Your task to perform on an android device: uninstall "Firefox Browser" Image 0: 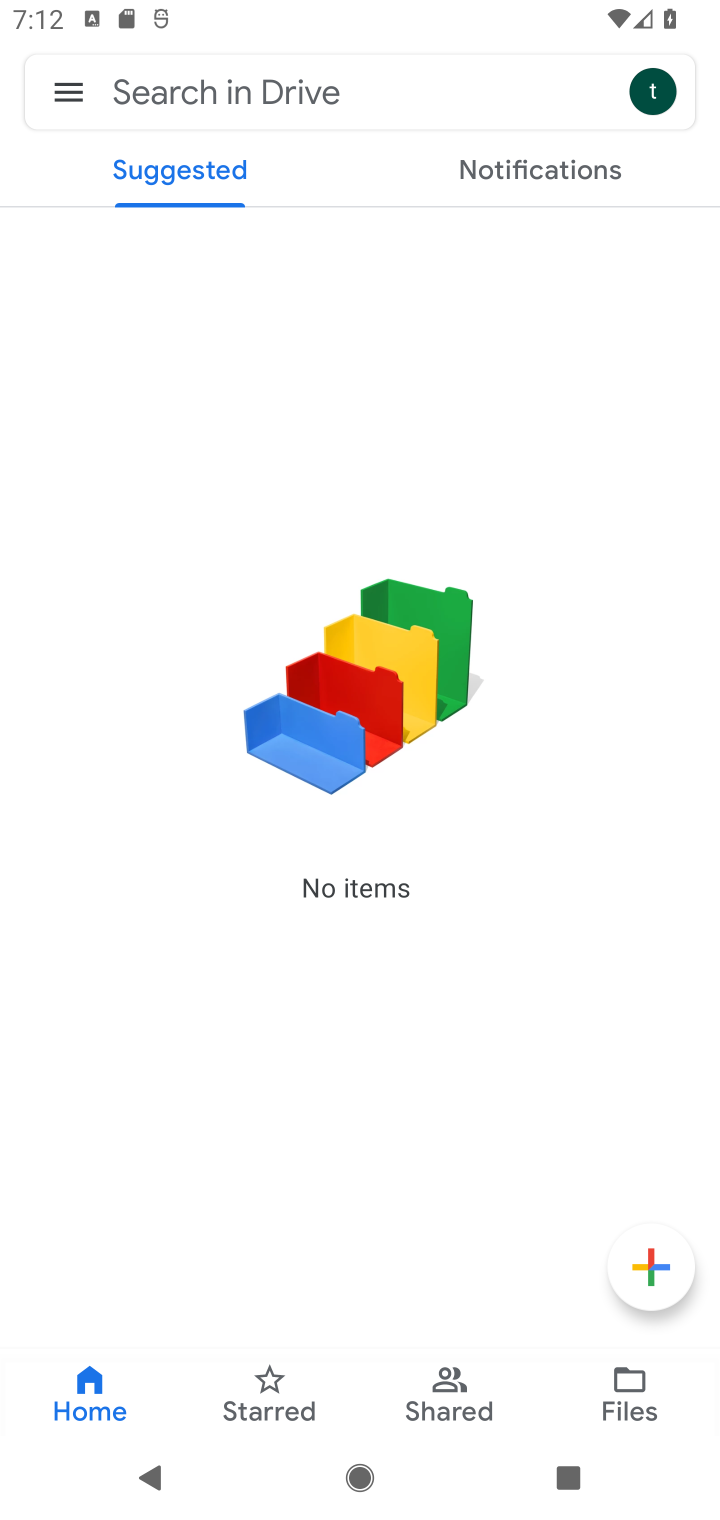
Step 0: press home button
Your task to perform on an android device: uninstall "Firefox Browser" Image 1: 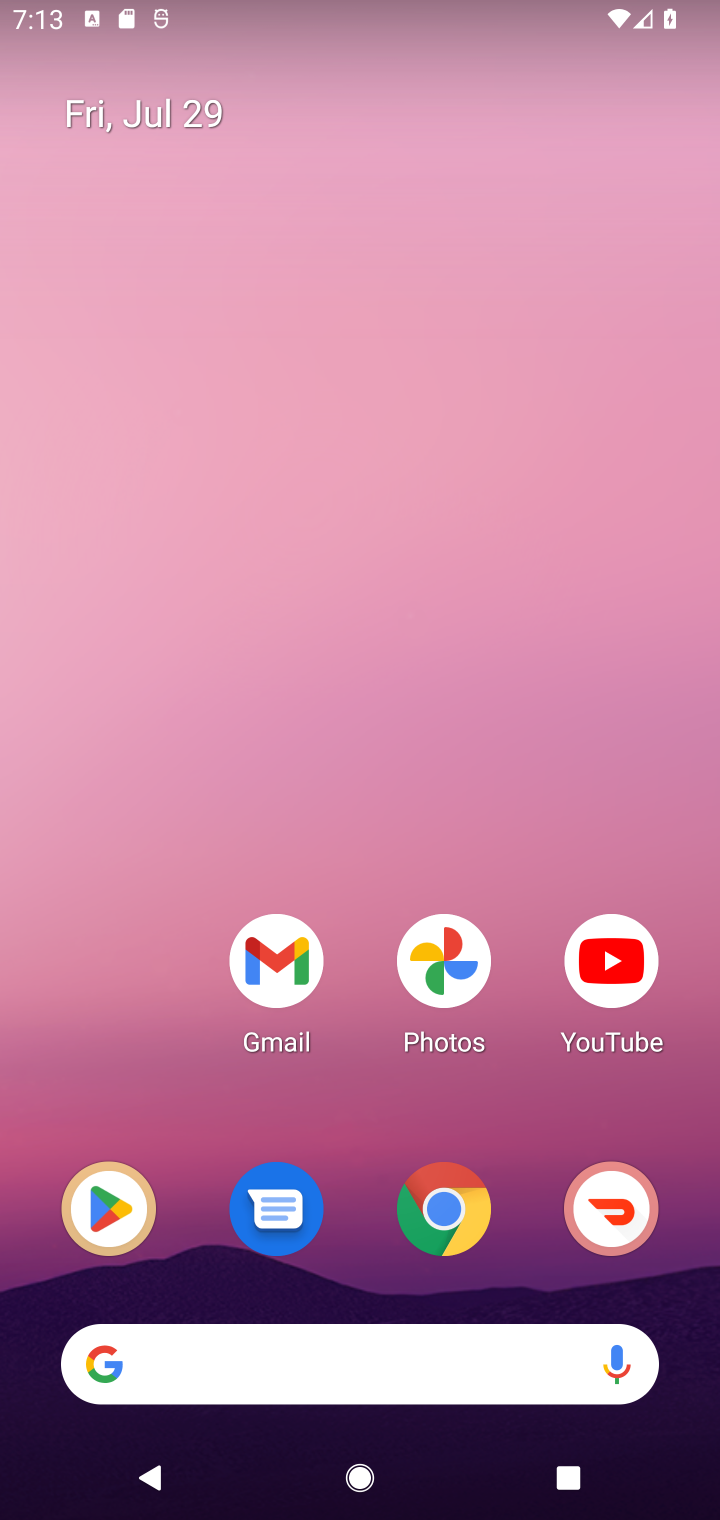
Step 1: click (102, 1200)
Your task to perform on an android device: uninstall "Firefox Browser" Image 2: 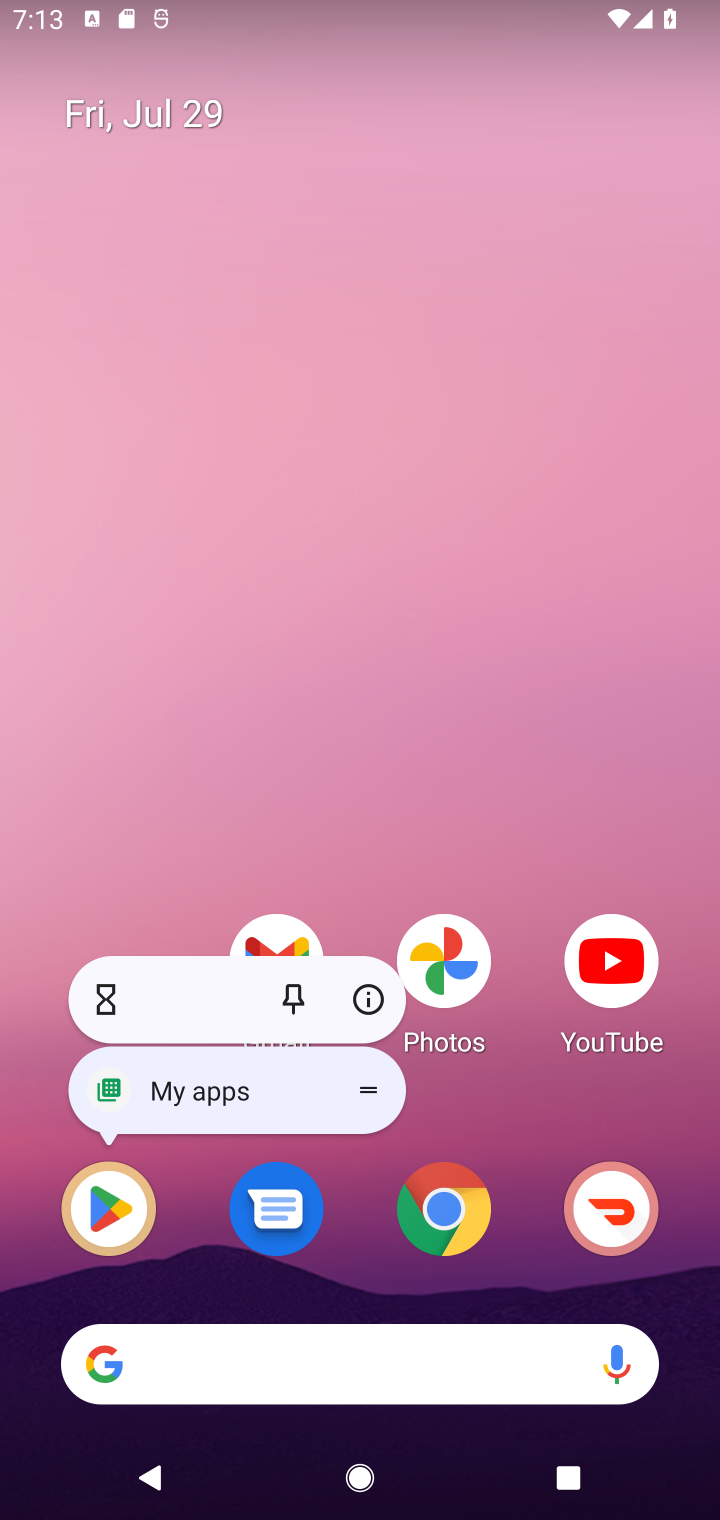
Step 2: click (97, 1223)
Your task to perform on an android device: uninstall "Firefox Browser" Image 3: 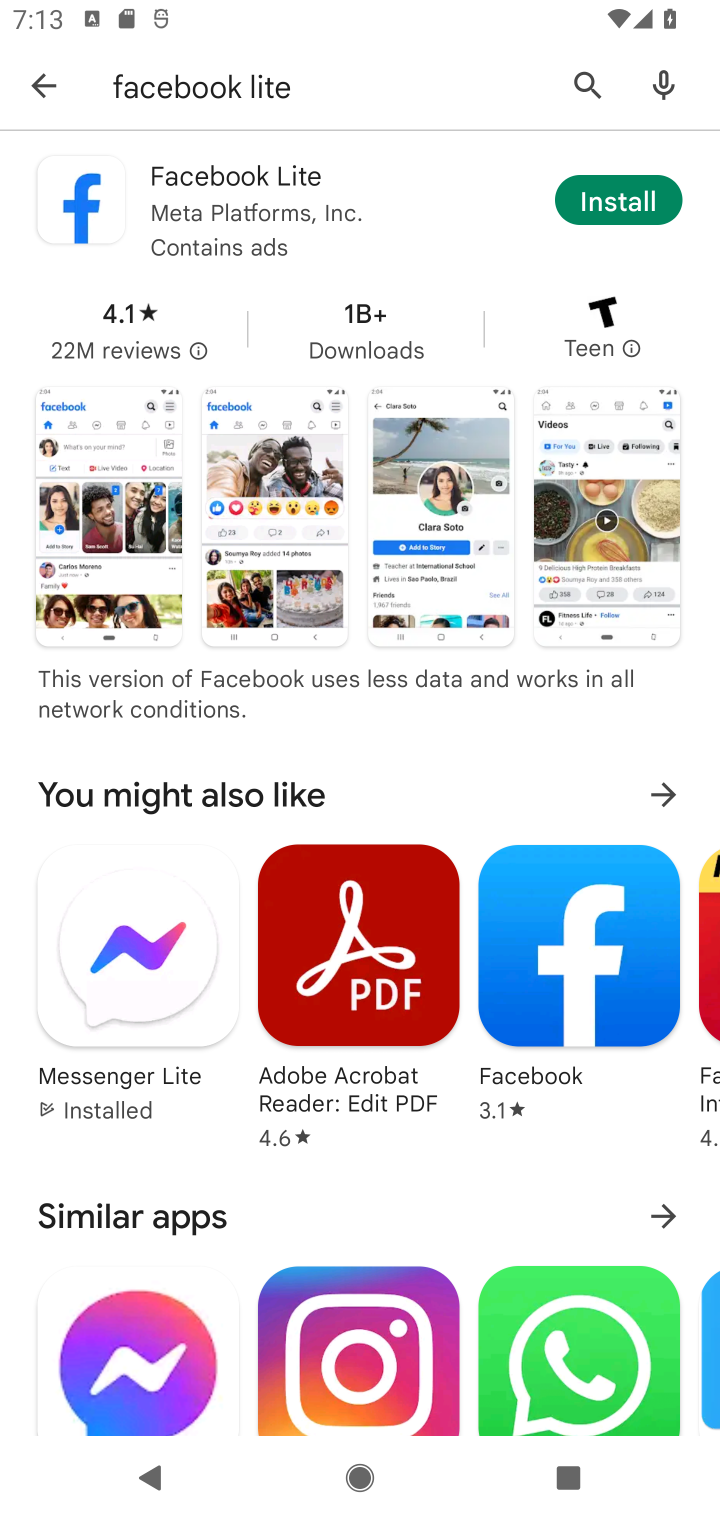
Step 3: click (589, 92)
Your task to perform on an android device: uninstall "Firefox Browser" Image 4: 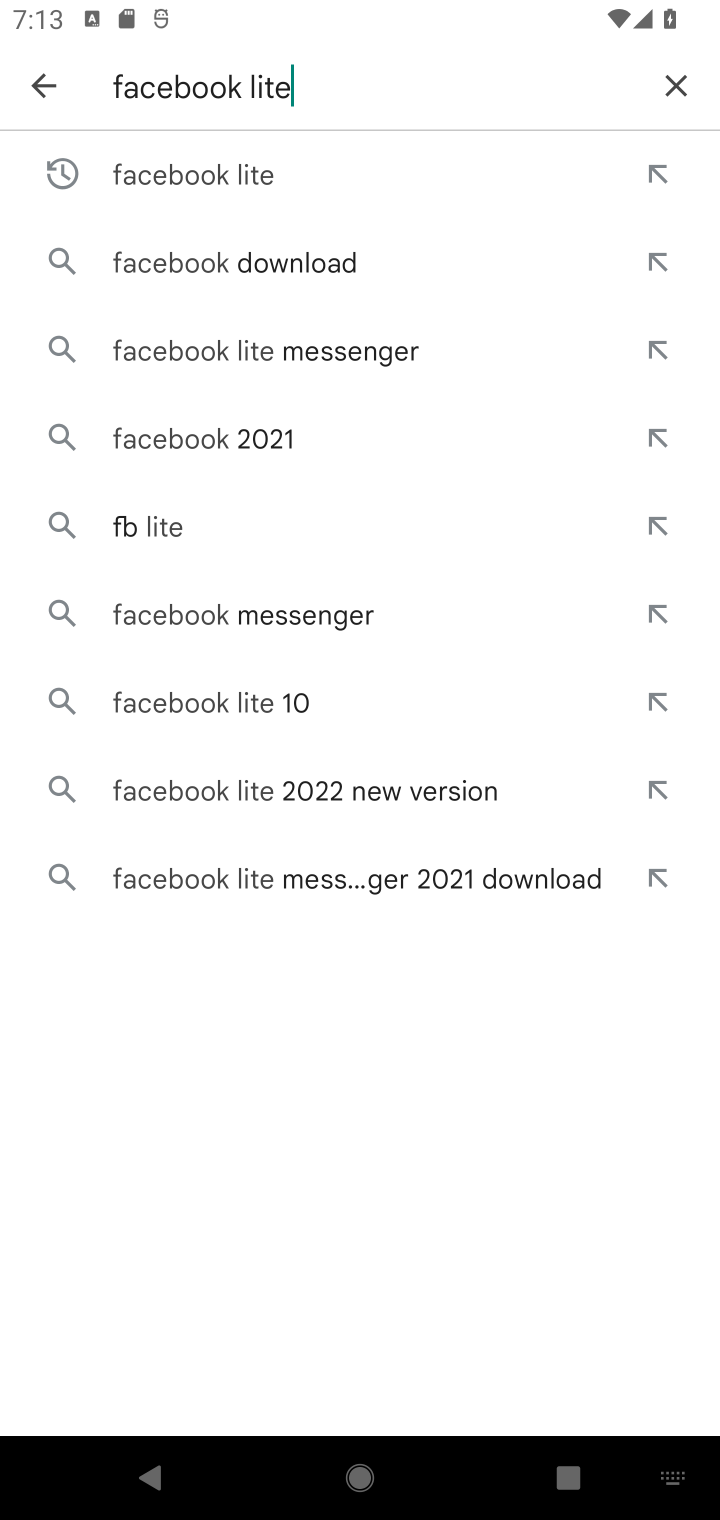
Step 4: click (680, 90)
Your task to perform on an android device: uninstall "Firefox Browser" Image 5: 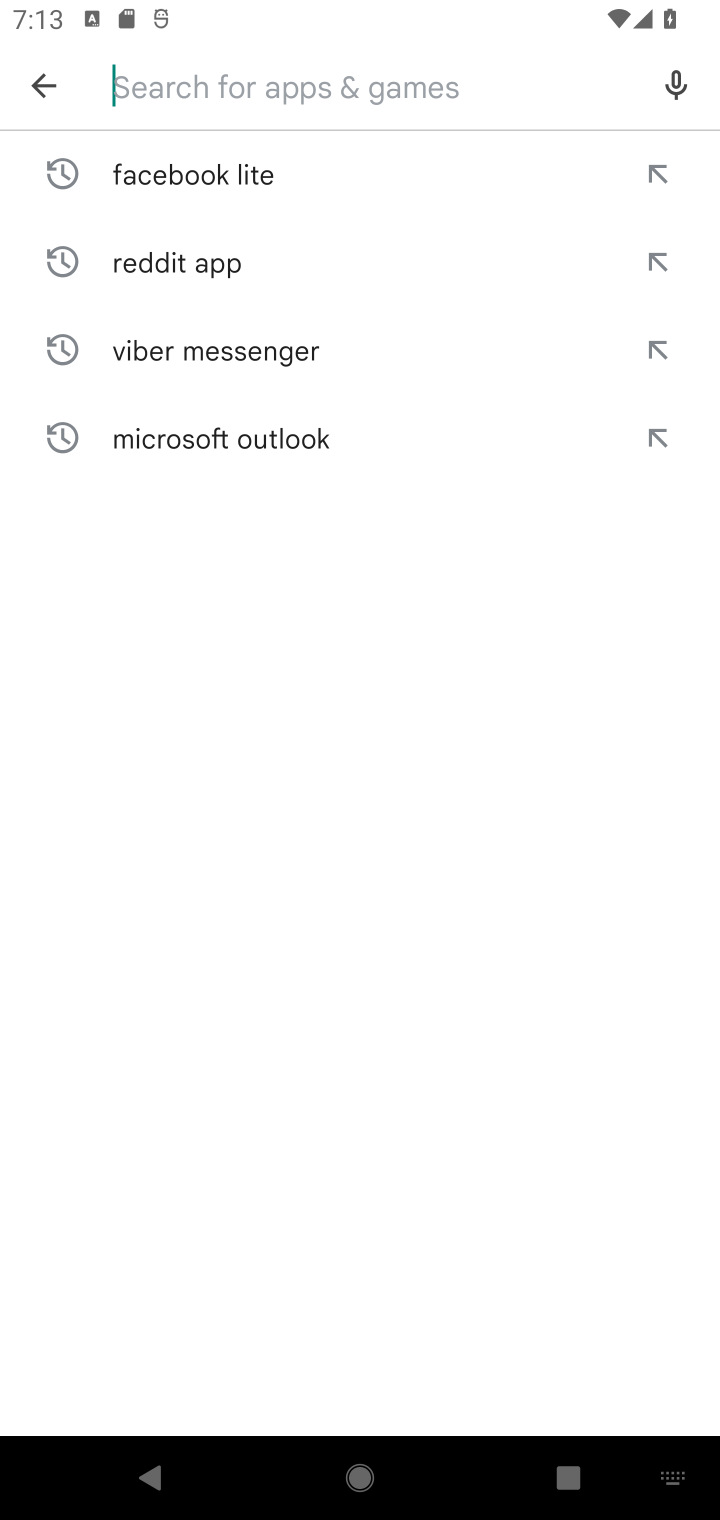
Step 5: type "Firefox Browser"
Your task to perform on an android device: uninstall "Firefox Browser" Image 6: 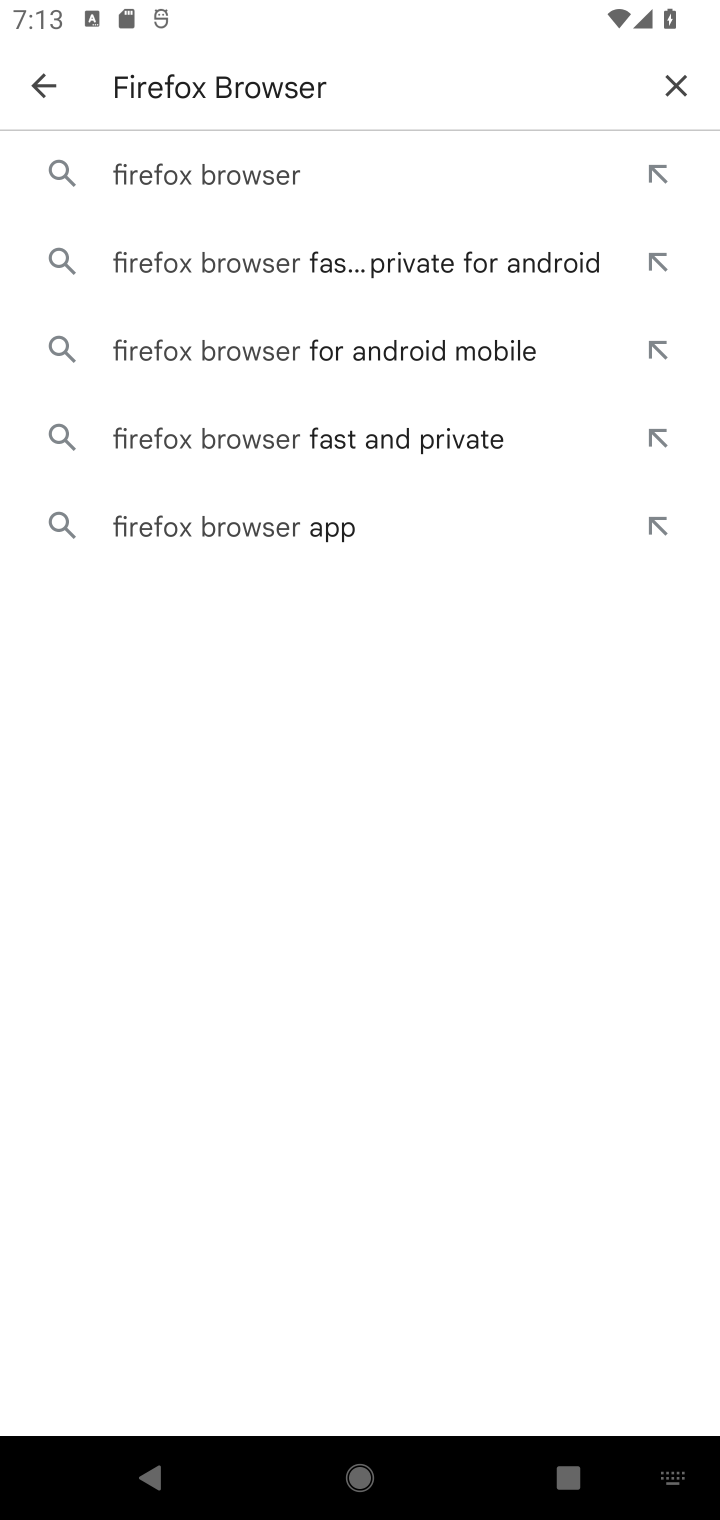
Step 6: click (184, 191)
Your task to perform on an android device: uninstall "Firefox Browser" Image 7: 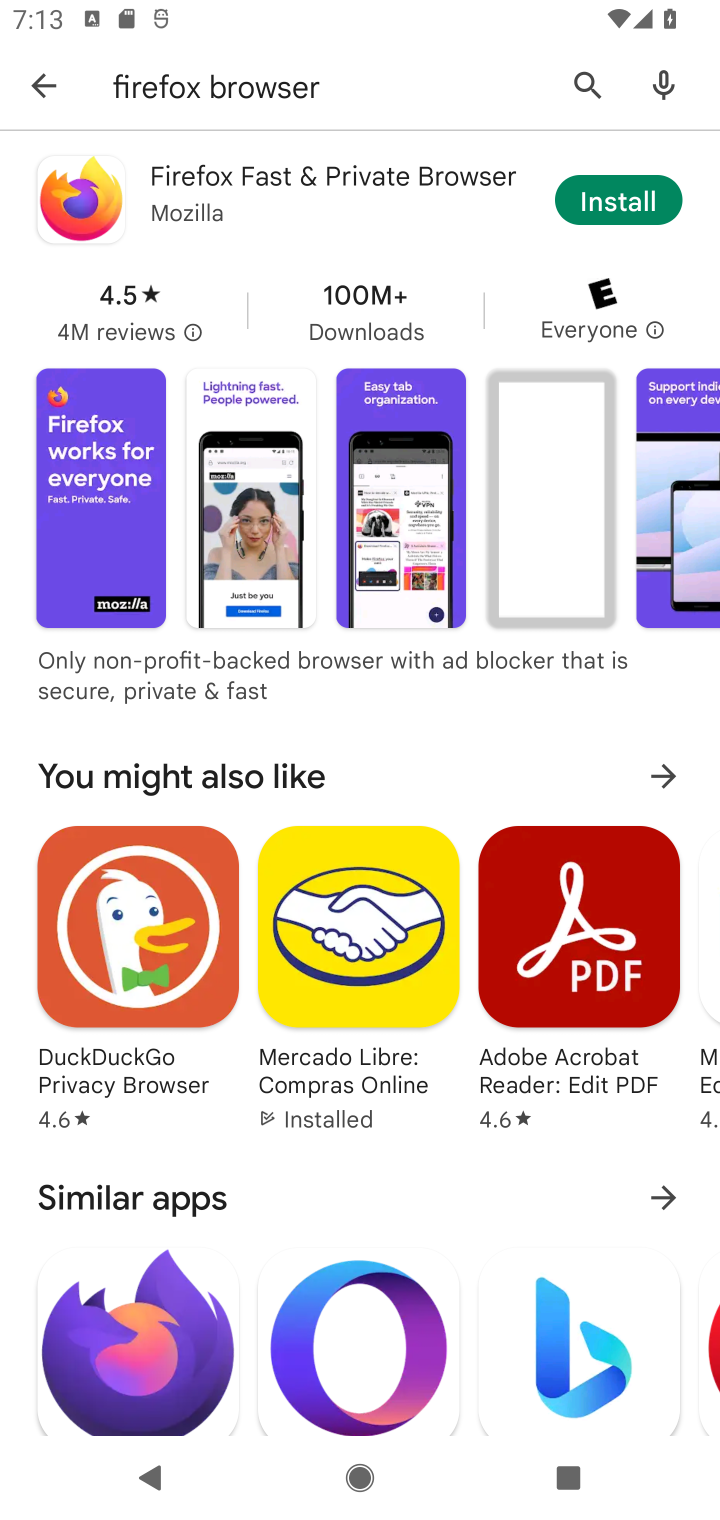
Step 7: task complete